Your task to perform on an android device: Empty the shopping cart on bestbuy. Image 0: 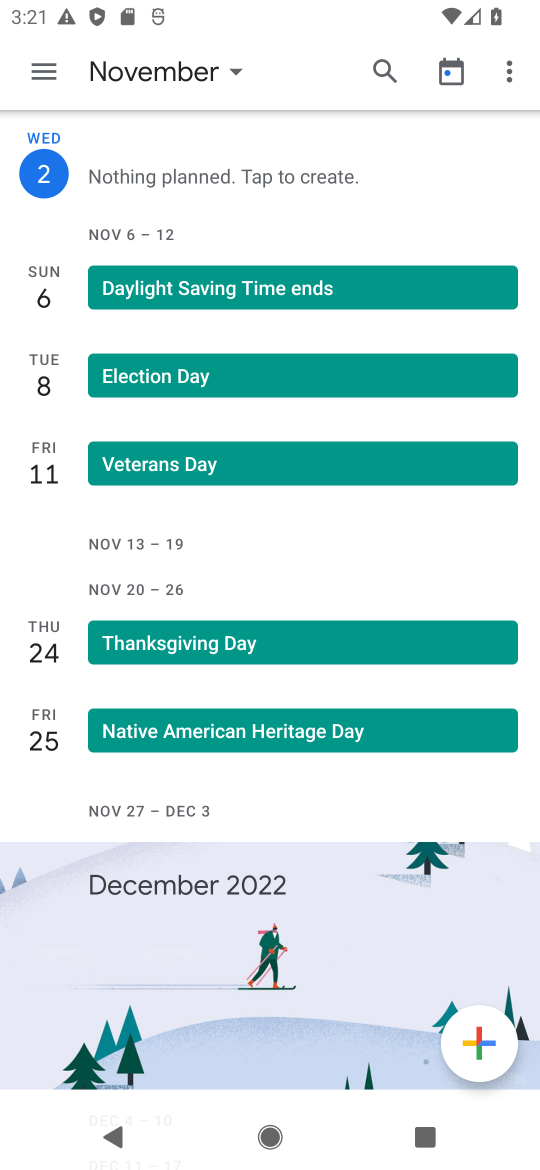
Step 0: press home button
Your task to perform on an android device: Empty the shopping cart on bestbuy. Image 1: 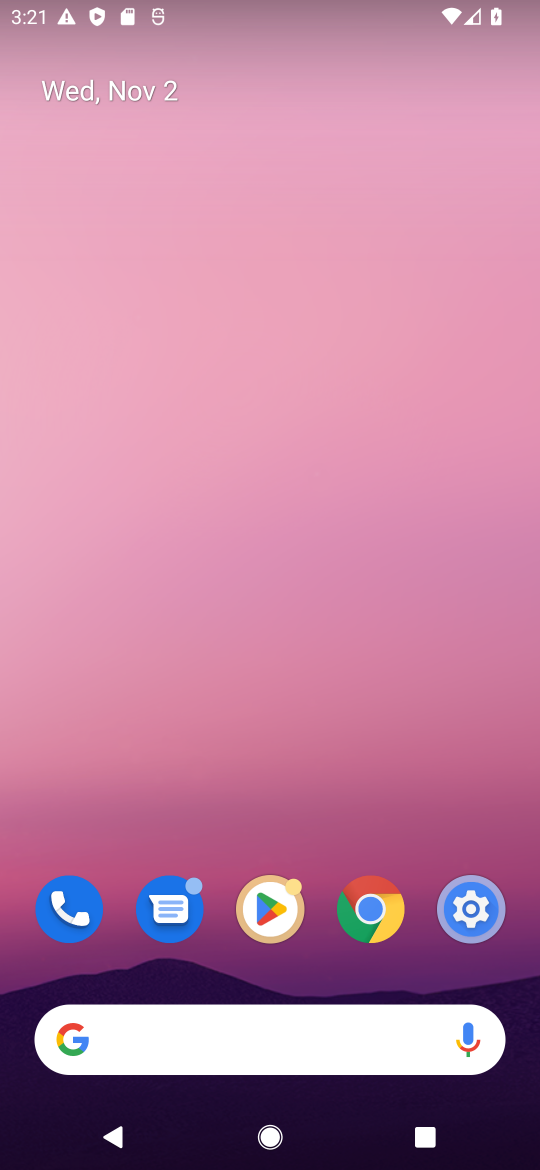
Step 1: drag from (256, 1038) to (381, 473)
Your task to perform on an android device: Empty the shopping cart on bestbuy. Image 2: 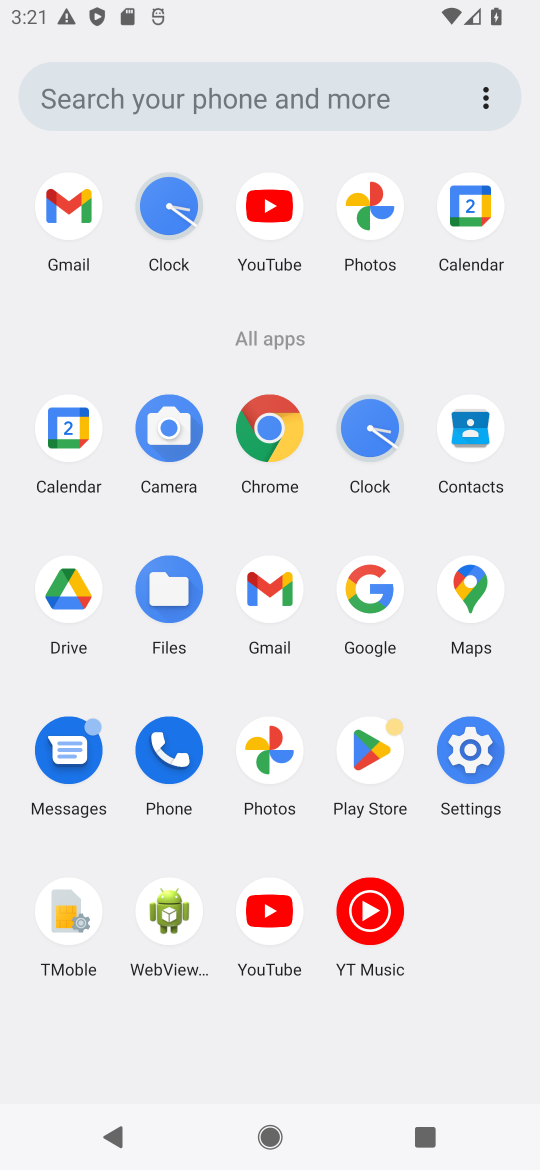
Step 2: click (268, 431)
Your task to perform on an android device: Empty the shopping cart on bestbuy. Image 3: 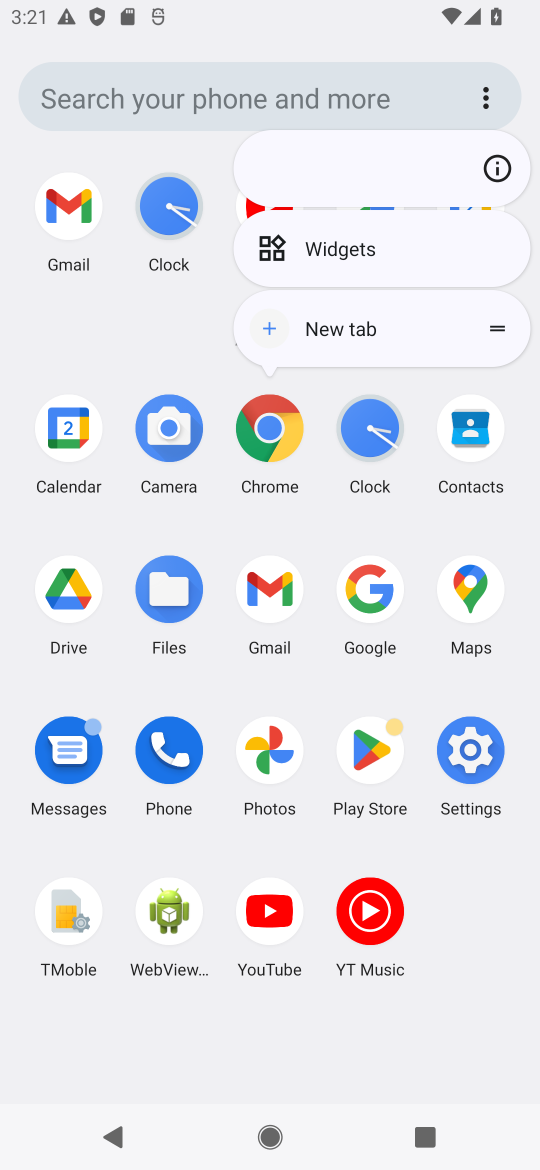
Step 3: click (268, 431)
Your task to perform on an android device: Empty the shopping cart on bestbuy. Image 4: 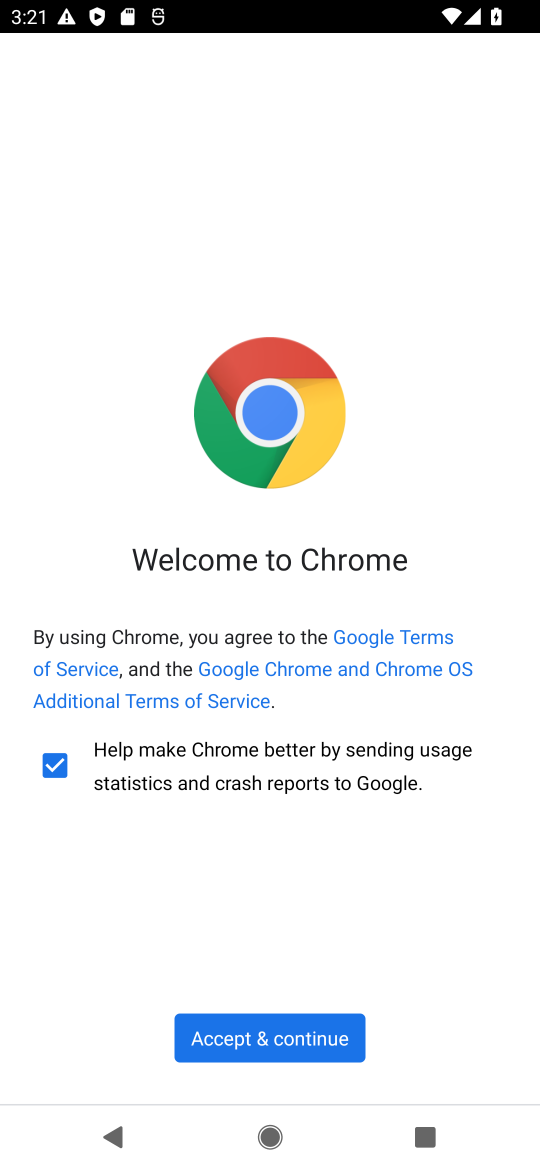
Step 4: click (227, 1037)
Your task to perform on an android device: Empty the shopping cart on bestbuy. Image 5: 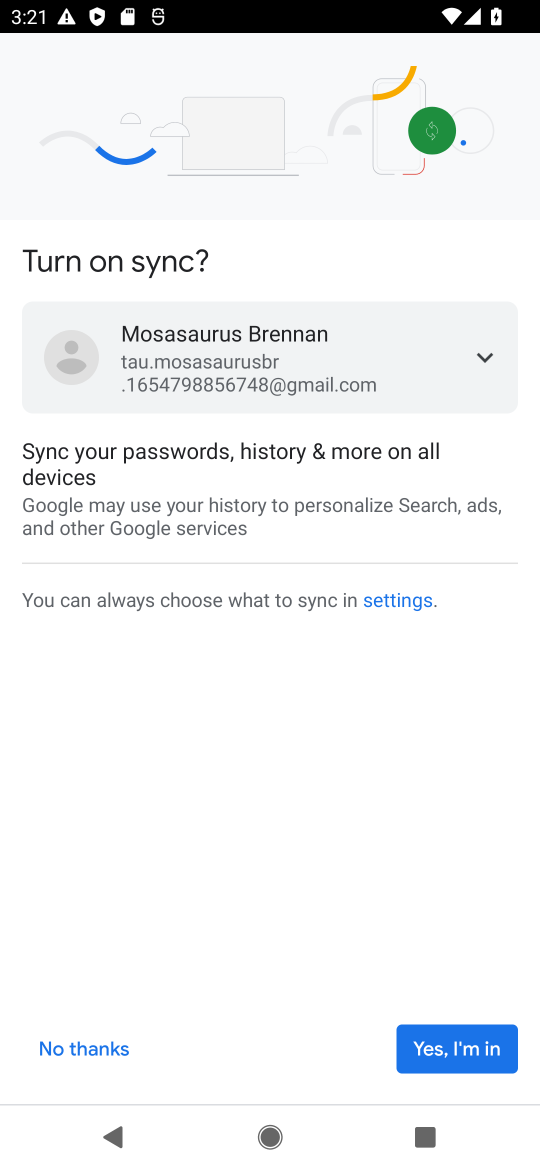
Step 5: click (468, 1052)
Your task to perform on an android device: Empty the shopping cart on bestbuy. Image 6: 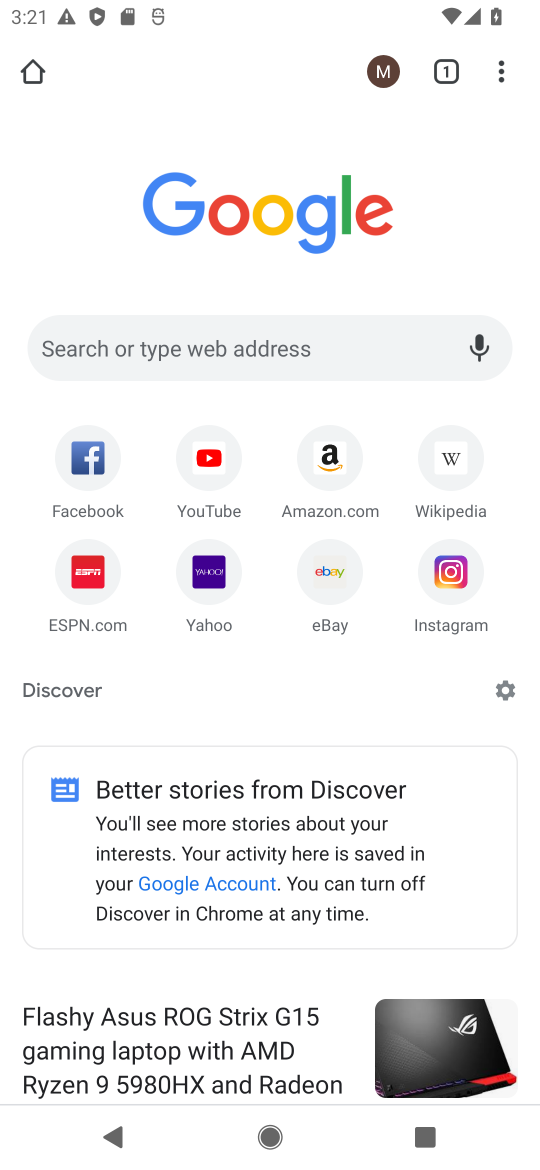
Step 6: click (176, 346)
Your task to perform on an android device: Empty the shopping cart on bestbuy. Image 7: 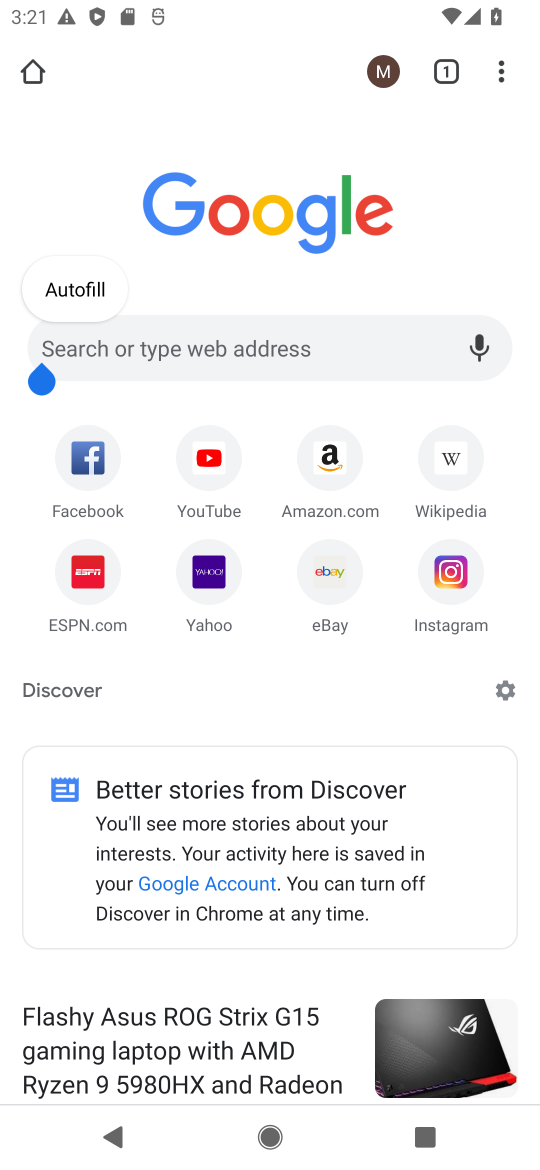
Step 7: click (127, 348)
Your task to perform on an android device: Empty the shopping cart on bestbuy. Image 8: 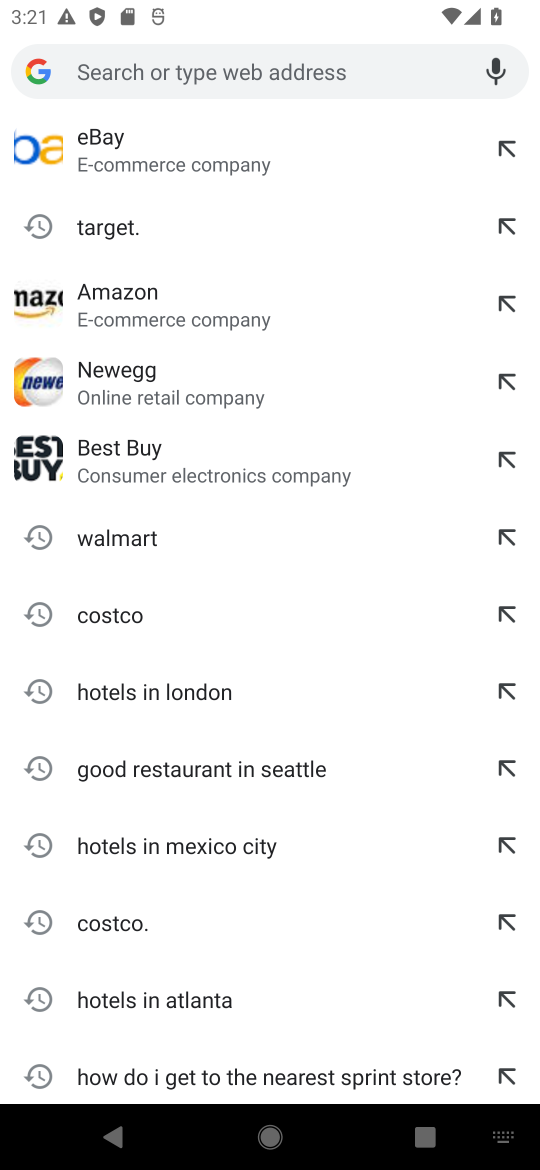
Step 8: click (86, 448)
Your task to perform on an android device: Empty the shopping cart on bestbuy. Image 9: 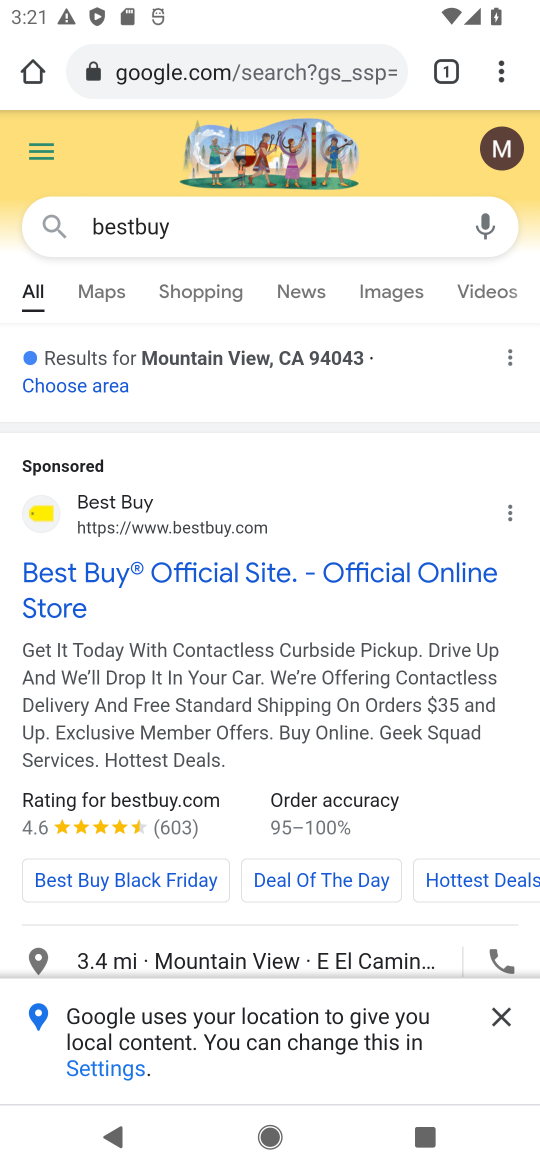
Step 9: click (182, 553)
Your task to perform on an android device: Empty the shopping cart on bestbuy. Image 10: 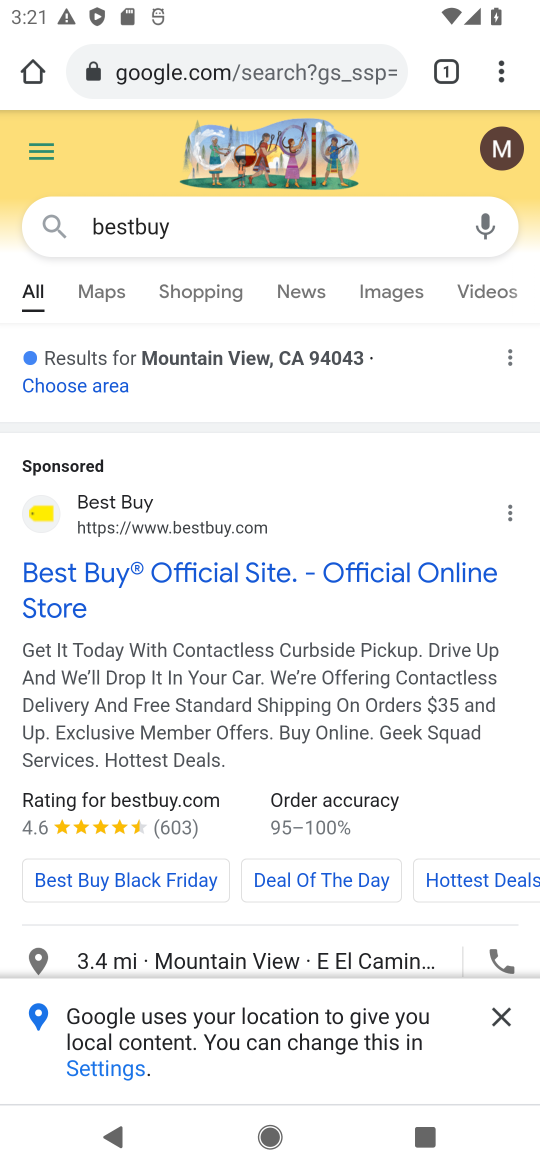
Step 10: click (172, 567)
Your task to perform on an android device: Empty the shopping cart on bestbuy. Image 11: 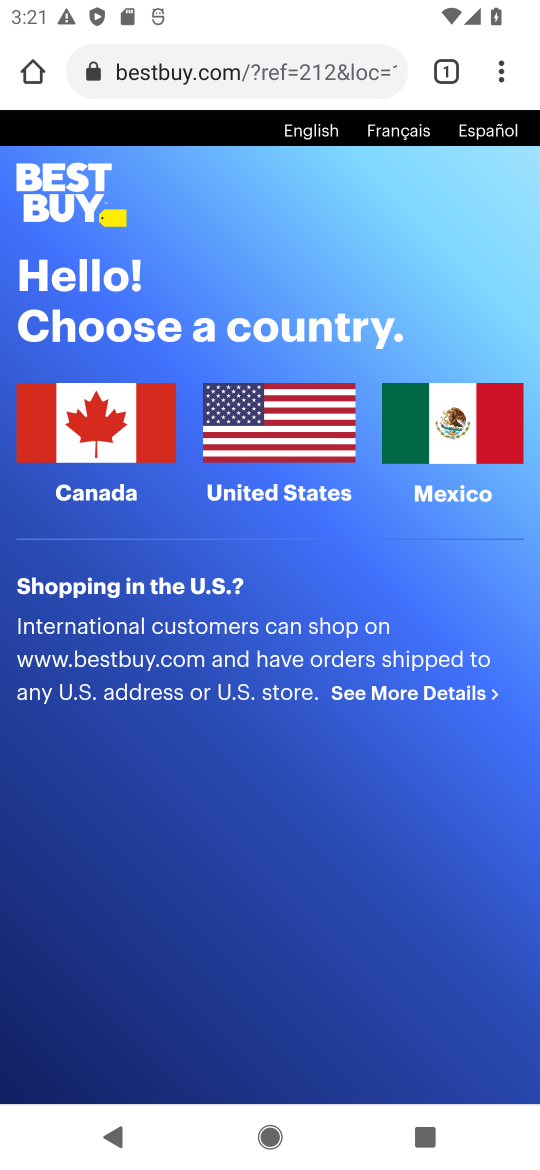
Step 11: click (125, 456)
Your task to perform on an android device: Empty the shopping cart on bestbuy. Image 12: 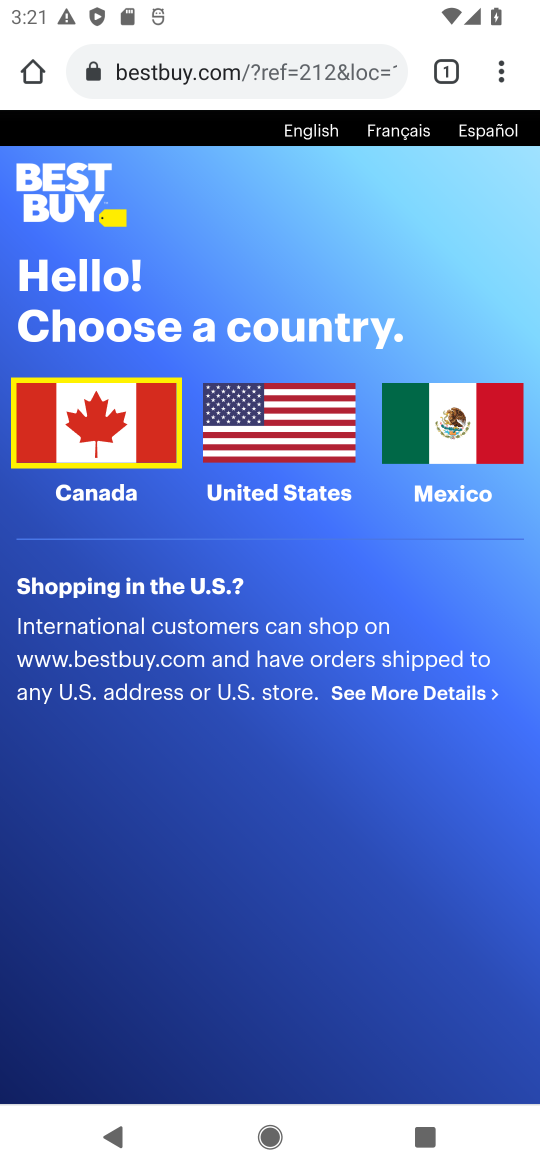
Step 12: click (102, 493)
Your task to perform on an android device: Empty the shopping cart on bestbuy. Image 13: 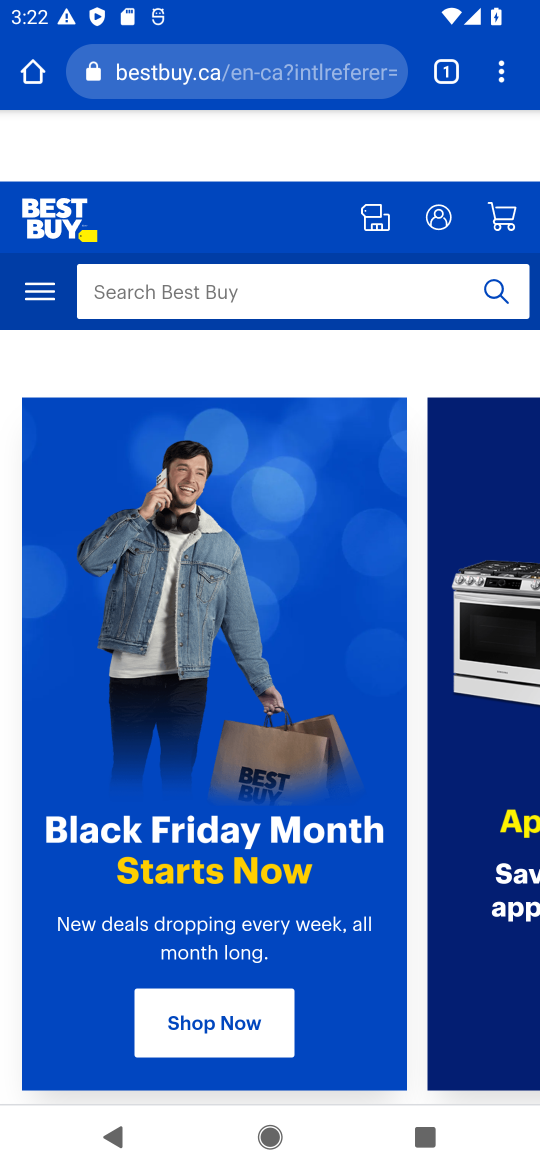
Step 13: click (506, 220)
Your task to perform on an android device: Empty the shopping cart on bestbuy. Image 14: 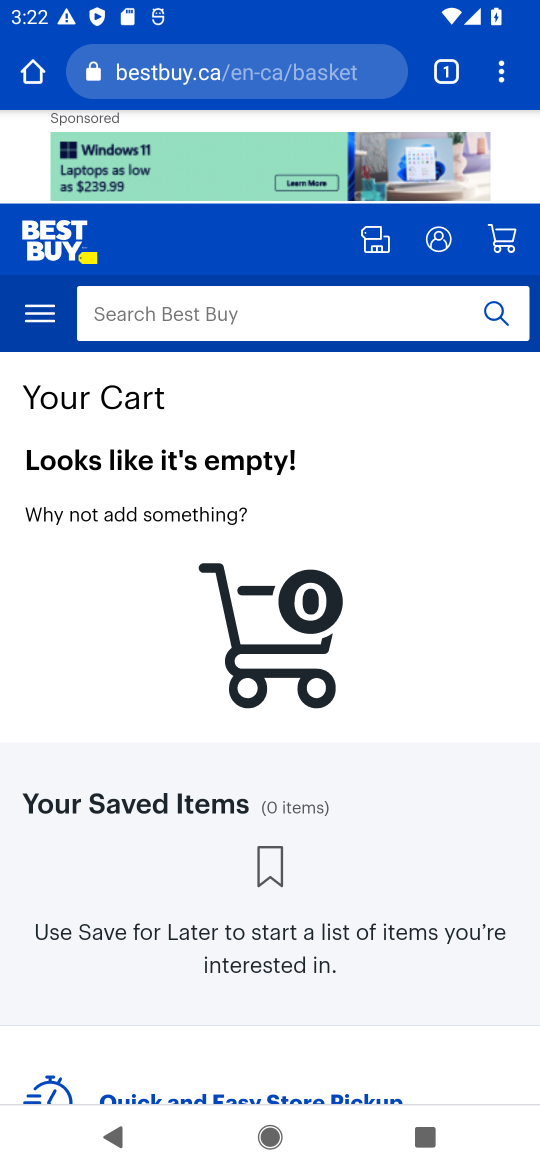
Step 14: task complete